Your task to perform on an android device: What is the news today? Image 0: 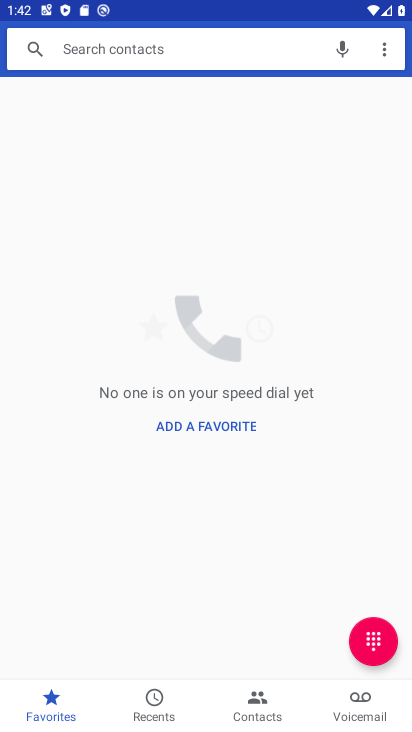
Step 0: press home button
Your task to perform on an android device: What is the news today? Image 1: 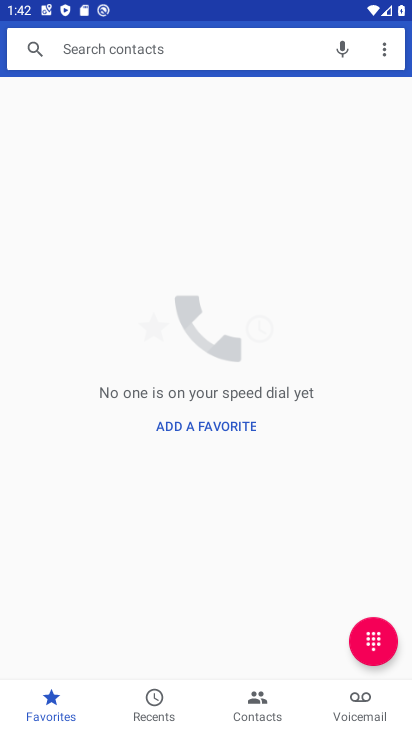
Step 1: press home button
Your task to perform on an android device: What is the news today? Image 2: 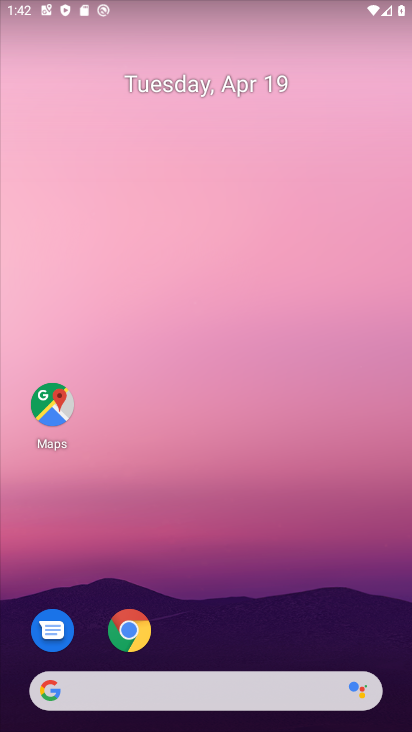
Step 2: click (159, 682)
Your task to perform on an android device: What is the news today? Image 3: 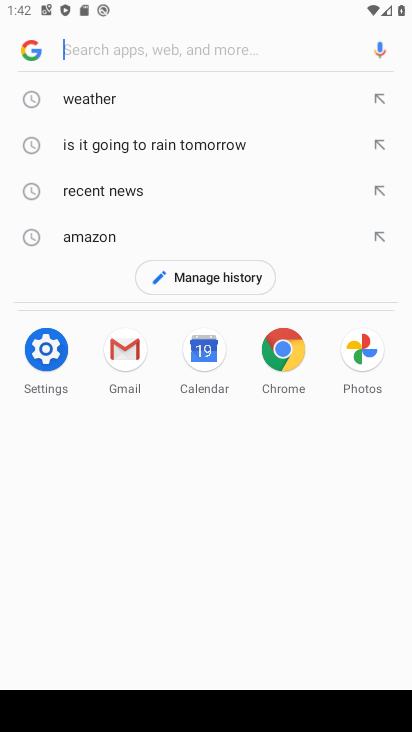
Step 3: type "What is the news today?"
Your task to perform on an android device: What is the news today? Image 4: 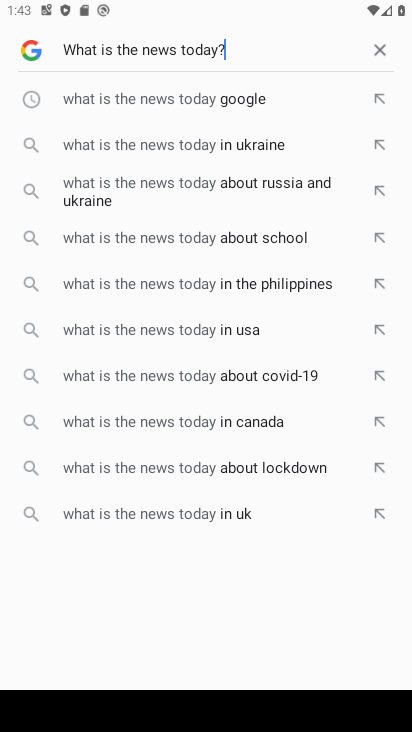
Step 4: click (302, 52)
Your task to perform on an android device: What is the news today? Image 5: 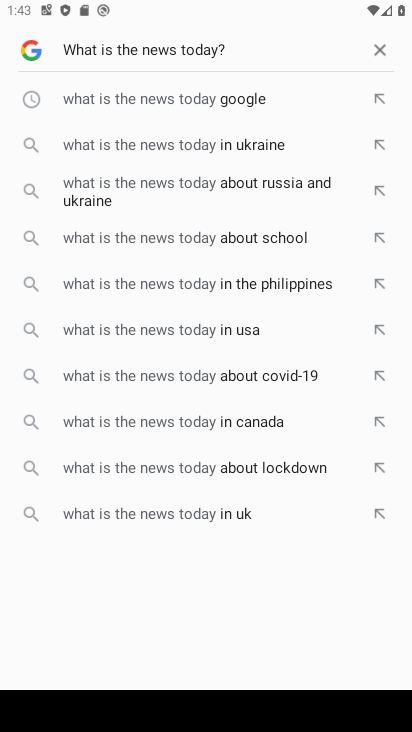
Step 5: click (235, 94)
Your task to perform on an android device: What is the news today? Image 6: 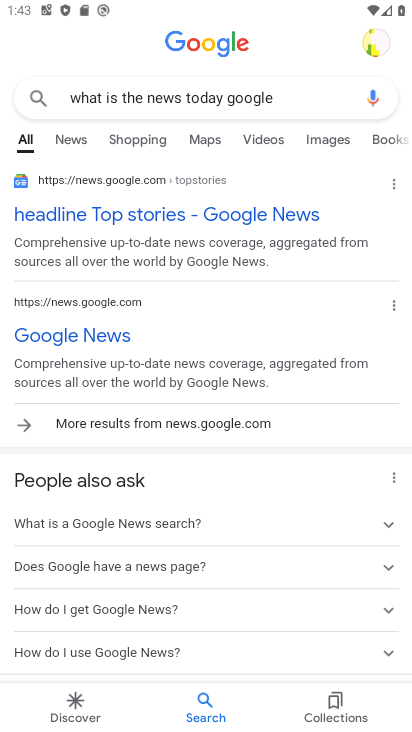
Step 6: click (168, 175)
Your task to perform on an android device: What is the news today? Image 7: 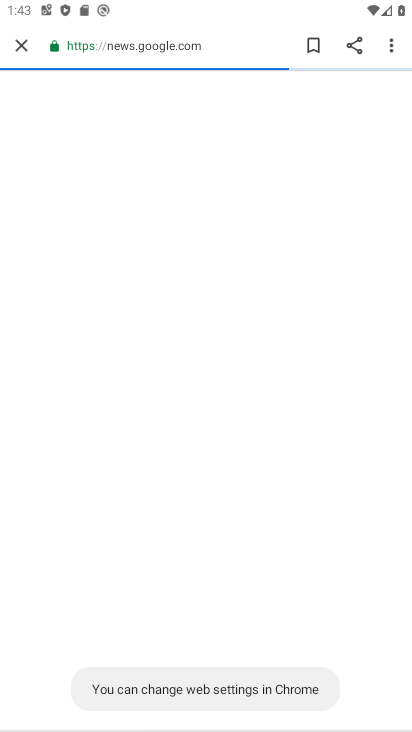
Step 7: click (158, 213)
Your task to perform on an android device: What is the news today? Image 8: 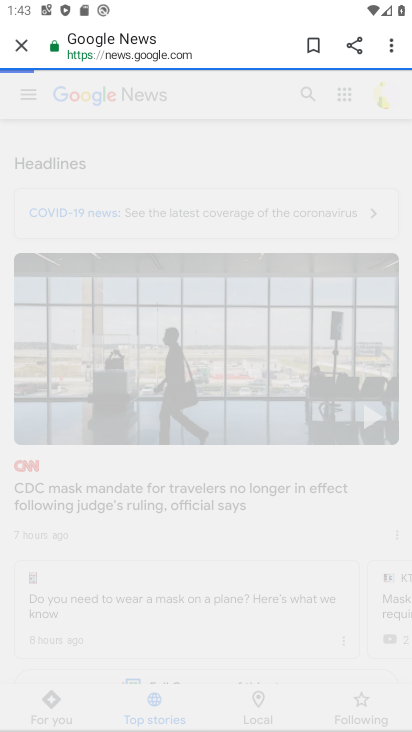
Step 8: click (161, 216)
Your task to perform on an android device: What is the news today? Image 9: 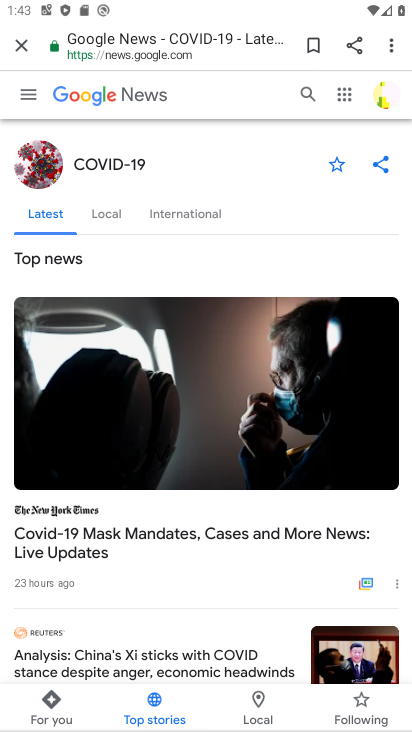
Step 9: task complete